Your task to perform on an android device: add a contact Image 0: 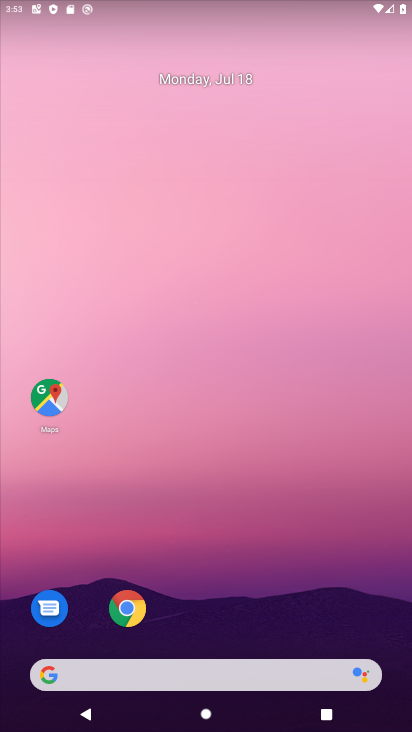
Step 0: drag from (271, 319) to (281, 232)
Your task to perform on an android device: add a contact Image 1: 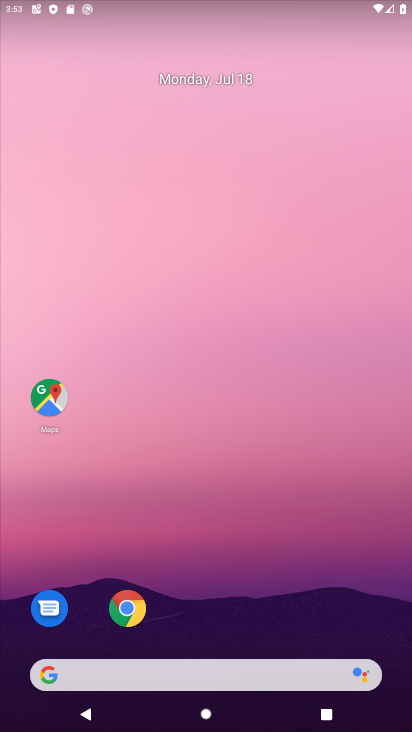
Step 1: drag from (259, 316) to (250, 45)
Your task to perform on an android device: add a contact Image 2: 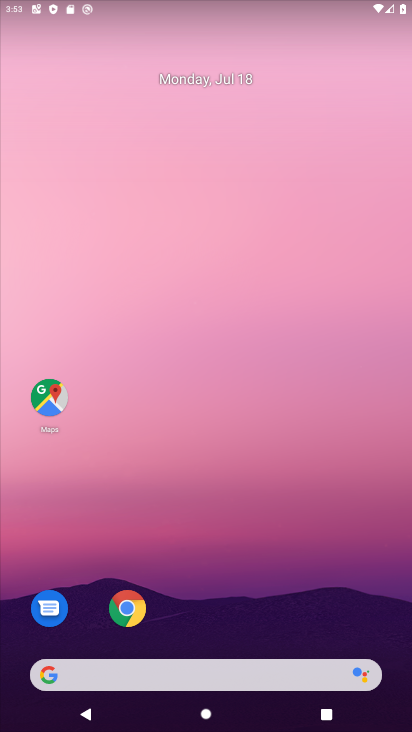
Step 2: drag from (239, 521) to (263, 219)
Your task to perform on an android device: add a contact Image 3: 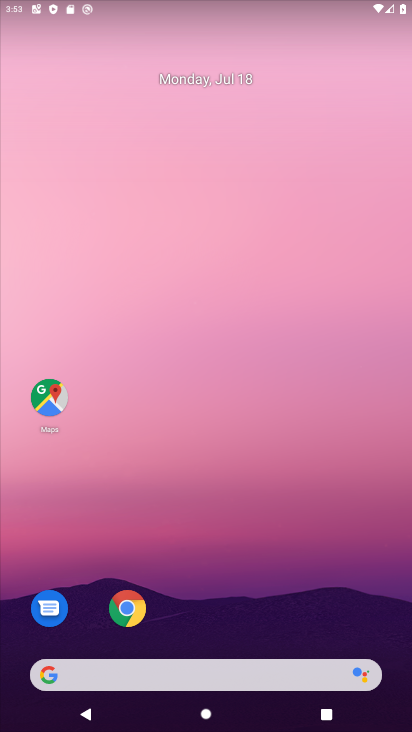
Step 3: drag from (250, 528) to (258, 179)
Your task to perform on an android device: add a contact Image 4: 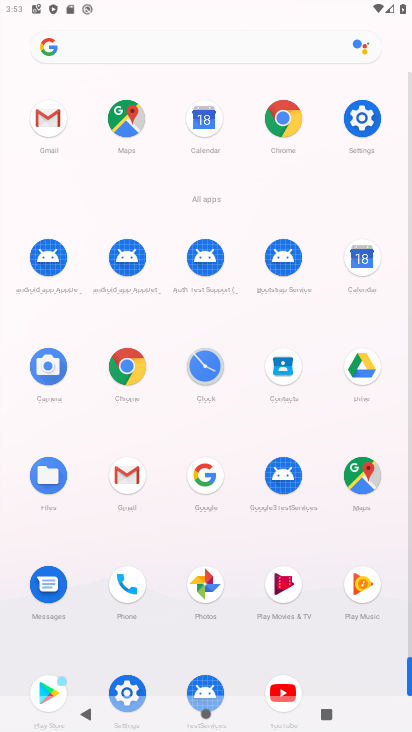
Step 4: click (282, 369)
Your task to perform on an android device: add a contact Image 5: 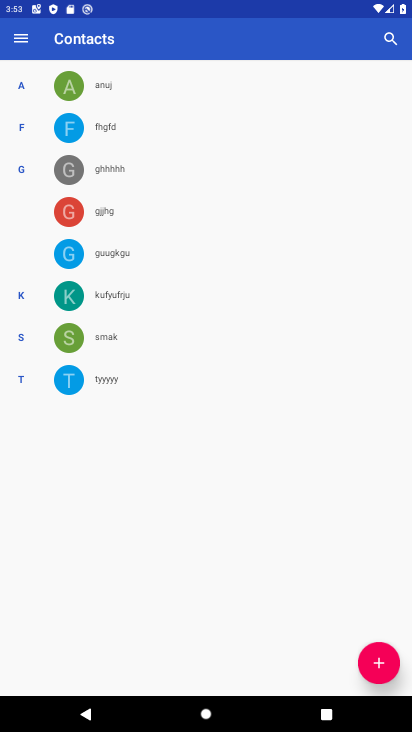
Step 5: click (373, 671)
Your task to perform on an android device: add a contact Image 6: 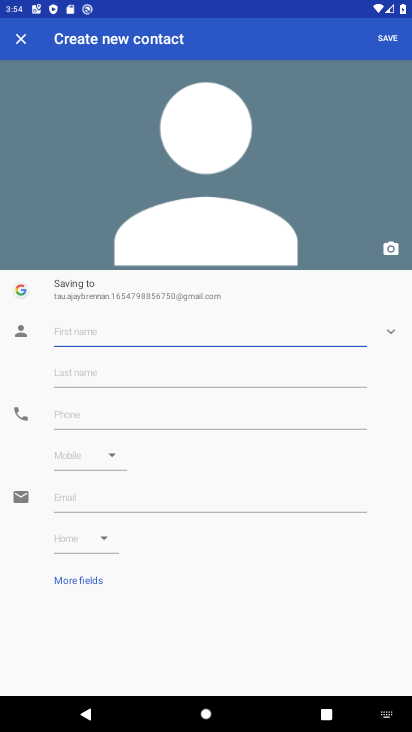
Step 6: type "reshma"
Your task to perform on an android device: add a contact Image 7: 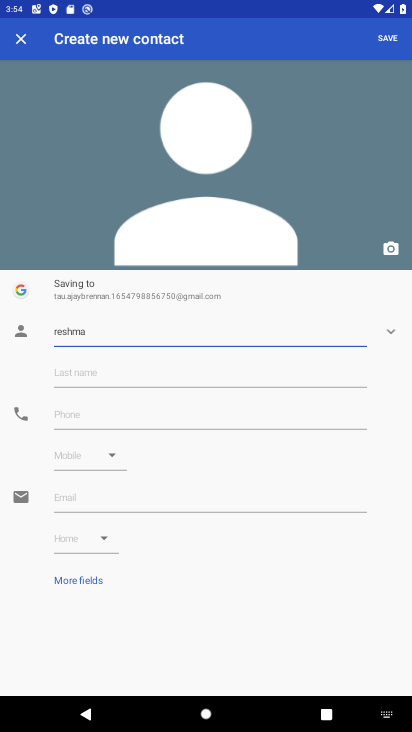
Step 7: press enter
Your task to perform on an android device: add a contact Image 8: 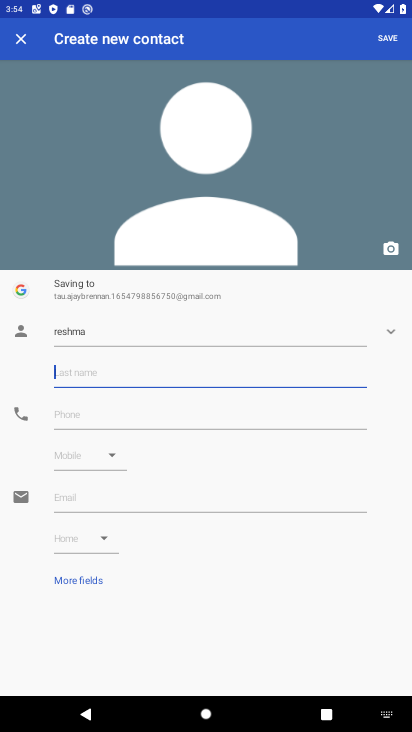
Step 8: type "Khan"
Your task to perform on an android device: add a contact Image 9: 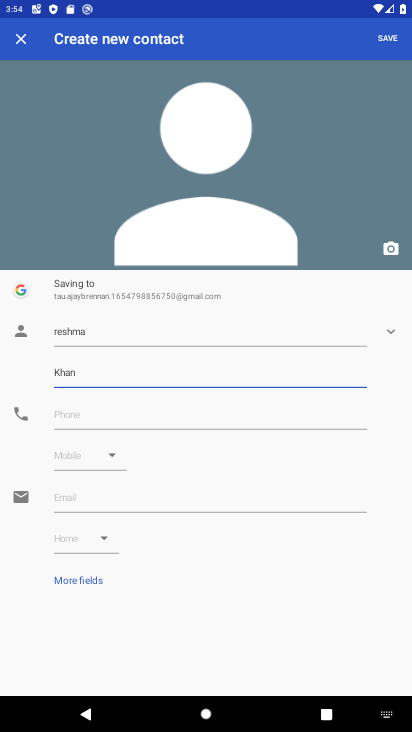
Step 9: press enter
Your task to perform on an android device: add a contact Image 10: 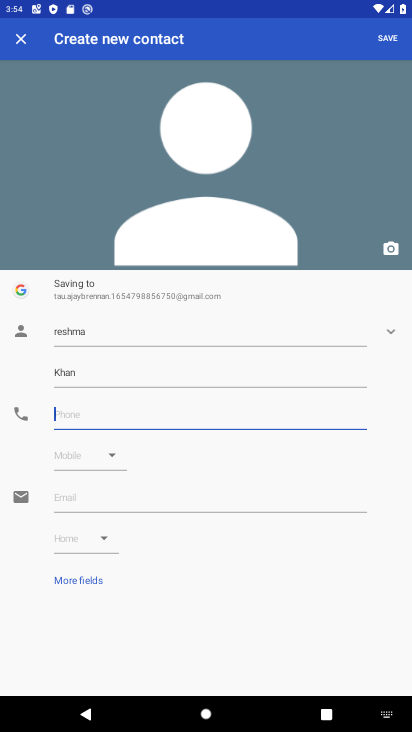
Step 10: type "99304"
Your task to perform on an android device: add a contact Image 11: 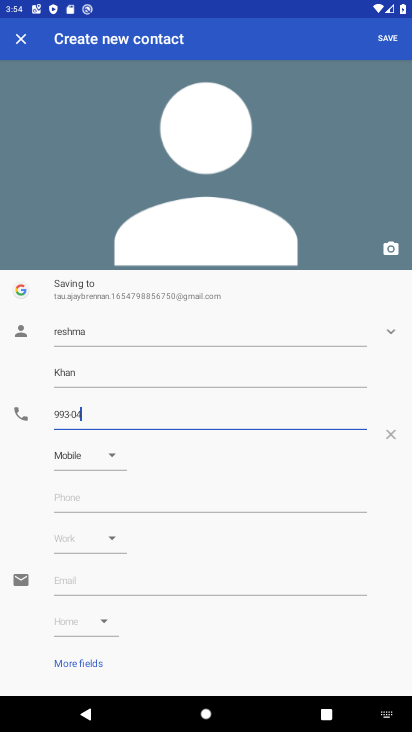
Step 11: click (385, 39)
Your task to perform on an android device: add a contact Image 12: 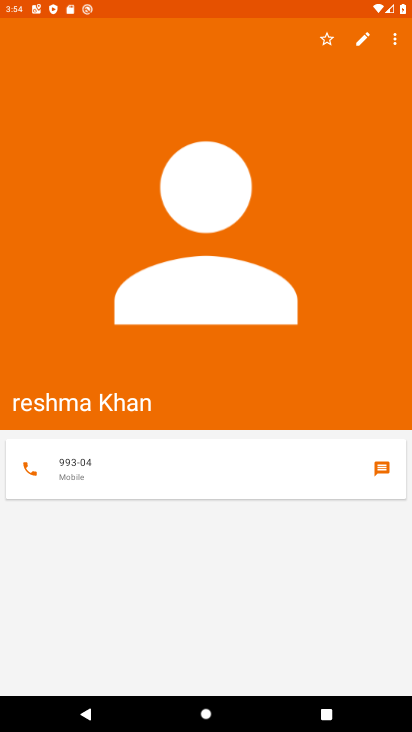
Step 12: task complete